Your task to perform on an android device: toggle data saver in the chrome app Image 0: 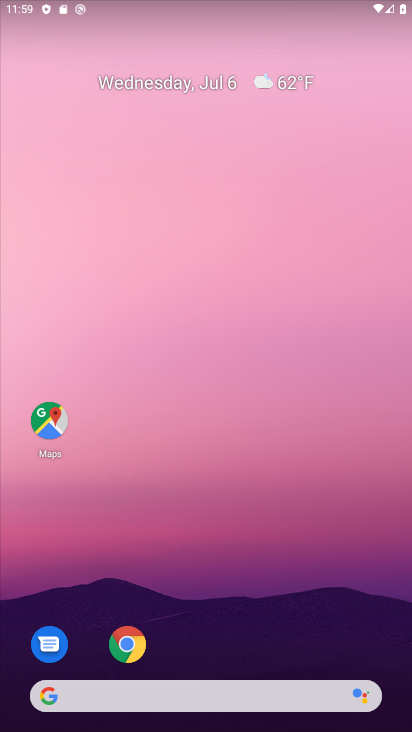
Step 0: click (125, 649)
Your task to perform on an android device: toggle data saver in the chrome app Image 1: 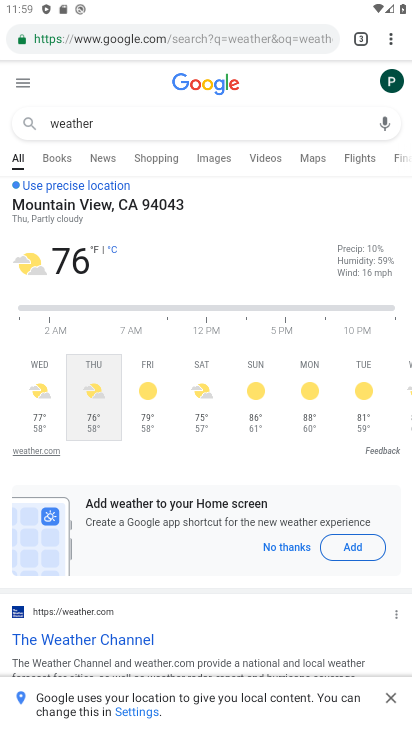
Step 1: press home button
Your task to perform on an android device: toggle data saver in the chrome app Image 2: 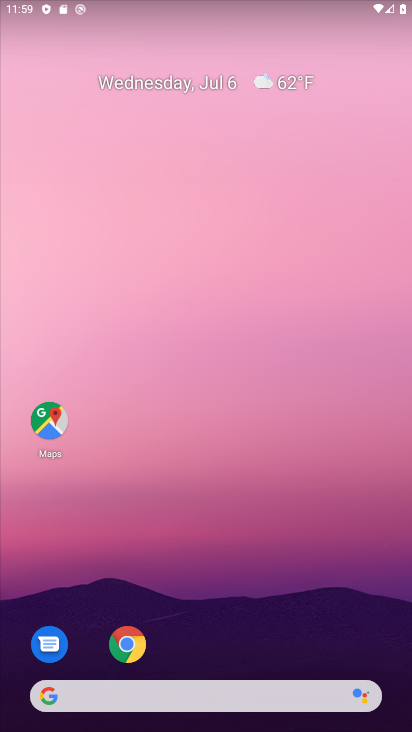
Step 2: click (127, 642)
Your task to perform on an android device: toggle data saver in the chrome app Image 3: 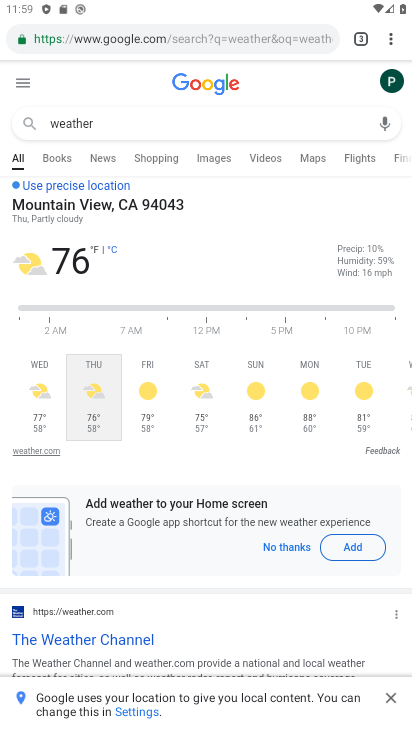
Step 3: click (391, 36)
Your task to perform on an android device: toggle data saver in the chrome app Image 4: 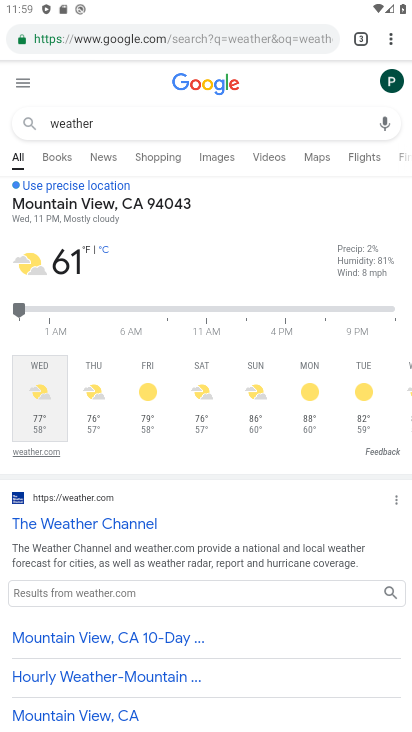
Step 4: click (391, 36)
Your task to perform on an android device: toggle data saver in the chrome app Image 5: 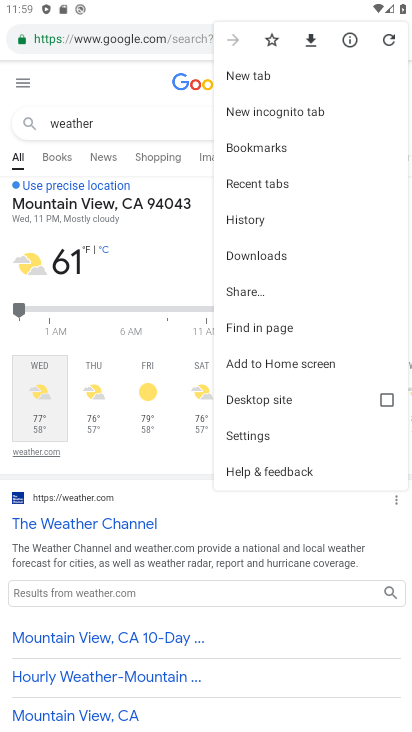
Step 5: click (255, 434)
Your task to perform on an android device: toggle data saver in the chrome app Image 6: 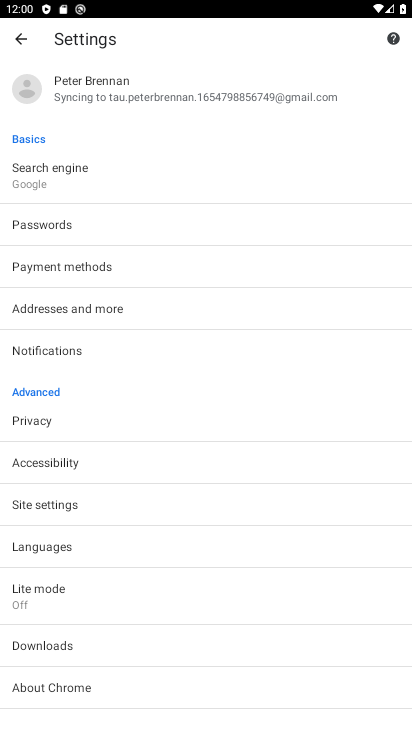
Step 6: click (121, 589)
Your task to perform on an android device: toggle data saver in the chrome app Image 7: 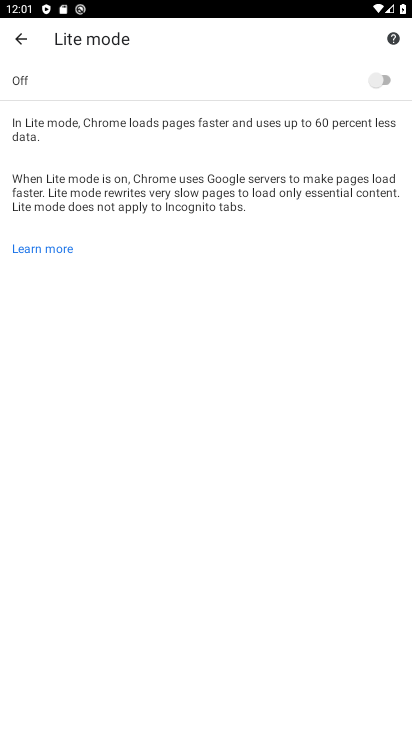
Step 7: click (383, 73)
Your task to perform on an android device: toggle data saver in the chrome app Image 8: 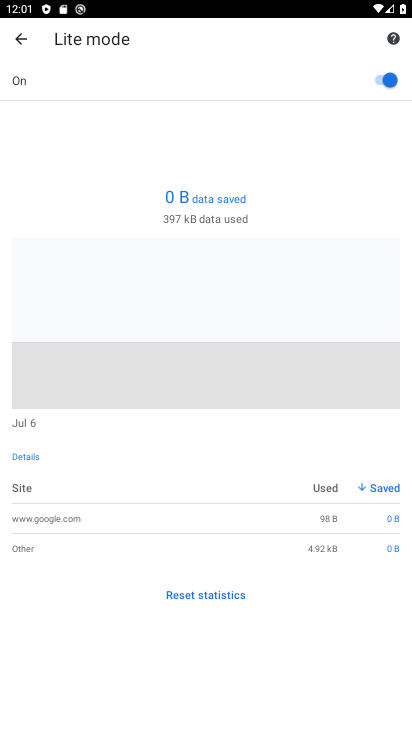
Step 8: task complete